Your task to perform on an android device: visit the assistant section in the google photos Image 0: 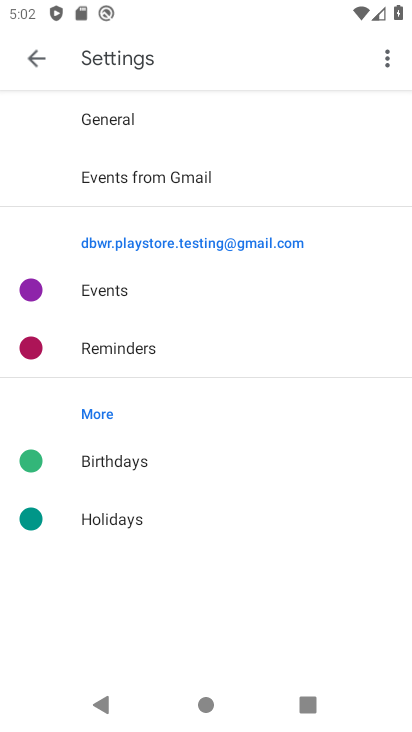
Step 0: press home button
Your task to perform on an android device: visit the assistant section in the google photos Image 1: 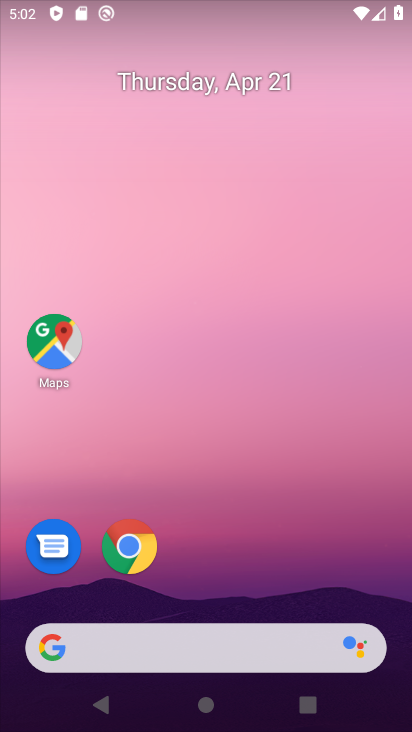
Step 1: drag from (199, 348) to (204, 90)
Your task to perform on an android device: visit the assistant section in the google photos Image 2: 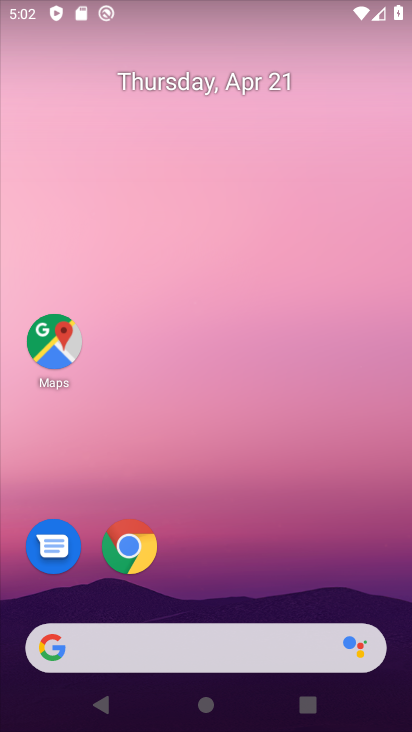
Step 2: drag from (247, 313) to (247, 22)
Your task to perform on an android device: visit the assistant section in the google photos Image 3: 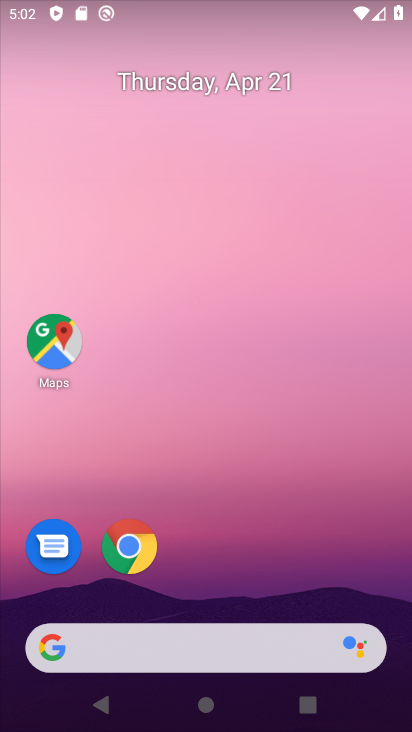
Step 3: drag from (249, 543) to (238, 21)
Your task to perform on an android device: visit the assistant section in the google photos Image 4: 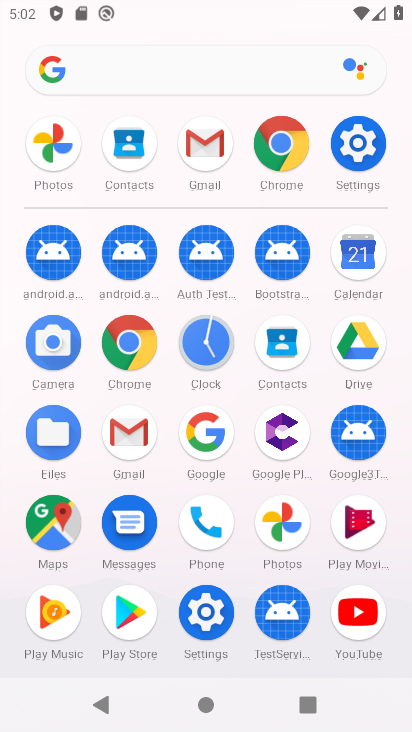
Step 4: click (278, 515)
Your task to perform on an android device: visit the assistant section in the google photos Image 5: 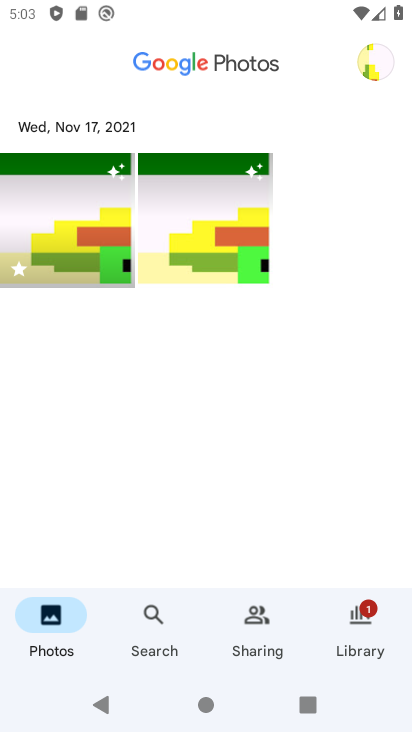
Step 5: click (357, 616)
Your task to perform on an android device: visit the assistant section in the google photos Image 6: 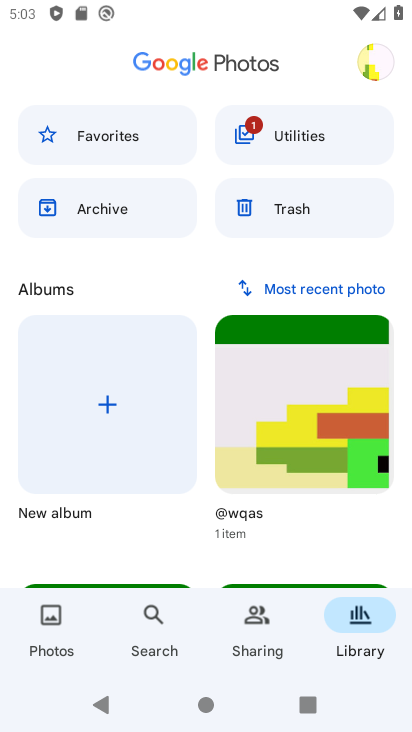
Step 6: task complete